Your task to perform on an android device: remove spam from my inbox in the gmail app Image 0: 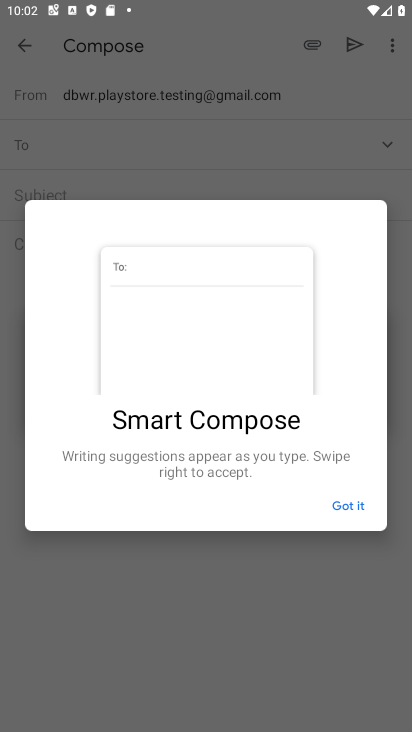
Step 0: press home button
Your task to perform on an android device: remove spam from my inbox in the gmail app Image 1: 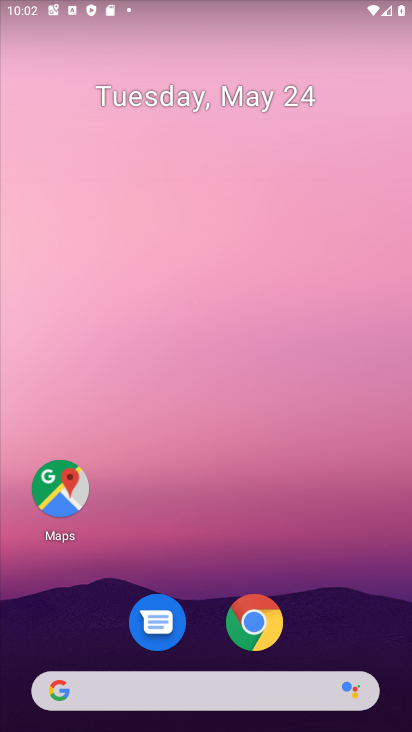
Step 1: drag from (265, 702) to (273, 0)
Your task to perform on an android device: remove spam from my inbox in the gmail app Image 2: 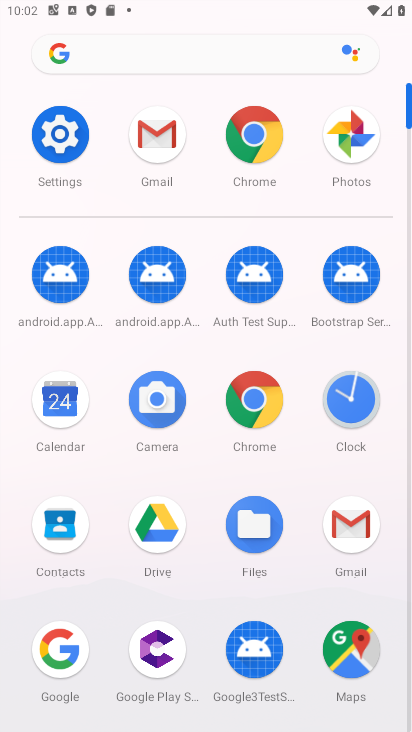
Step 2: click (162, 144)
Your task to perform on an android device: remove spam from my inbox in the gmail app Image 3: 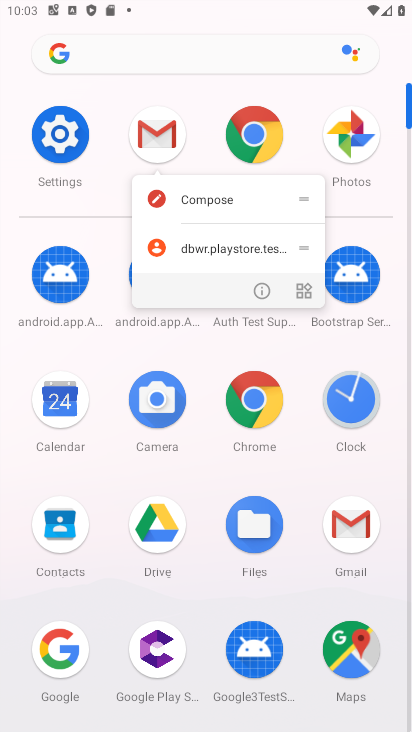
Step 3: click (165, 143)
Your task to perform on an android device: remove spam from my inbox in the gmail app Image 4: 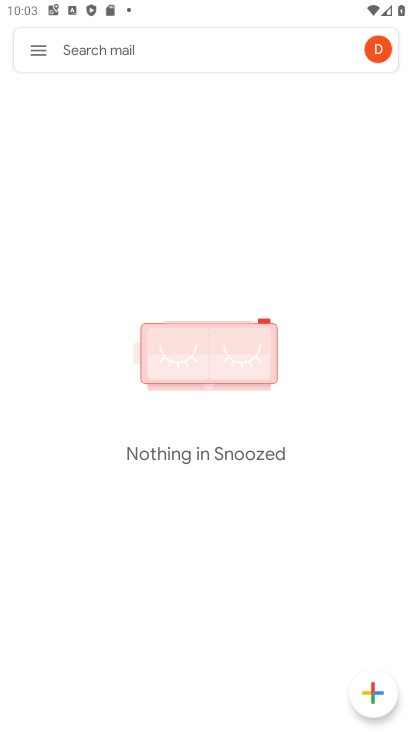
Step 4: click (45, 52)
Your task to perform on an android device: remove spam from my inbox in the gmail app Image 5: 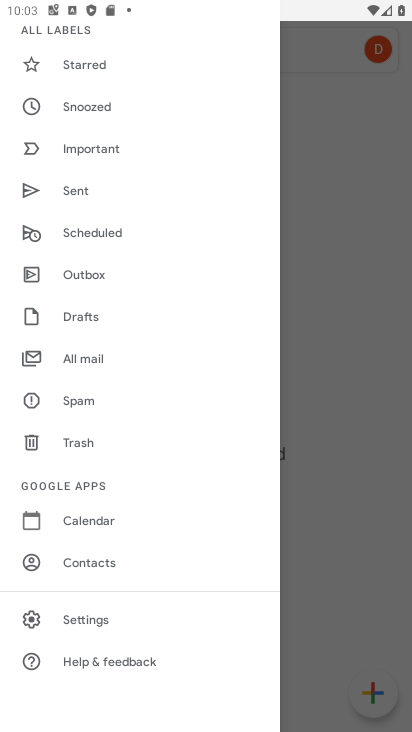
Step 5: click (85, 398)
Your task to perform on an android device: remove spam from my inbox in the gmail app Image 6: 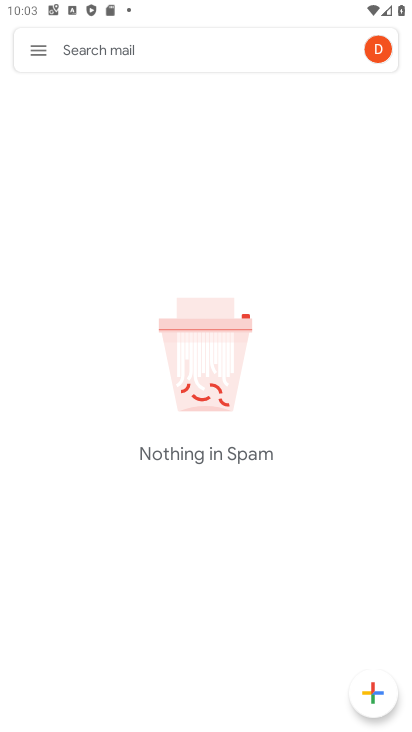
Step 6: task complete